Your task to perform on an android device: set the timer Image 0: 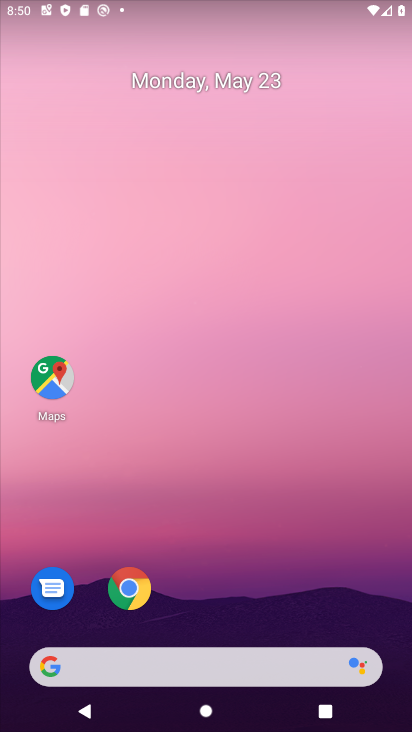
Step 0: drag from (394, 655) to (355, 231)
Your task to perform on an android device: set the timer Image 1: 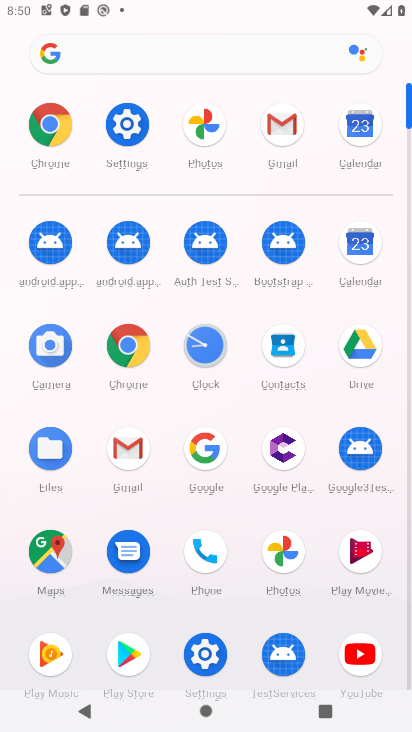
Step 1: click (200, 349)
Your task to perform on an android device: set the timer Image 2: 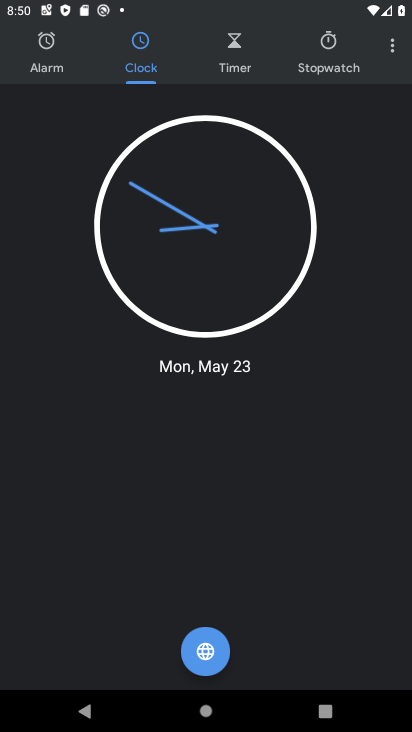
Step 2: click (319, 39)
Your task to perform on an android device: set the timer Image 3: 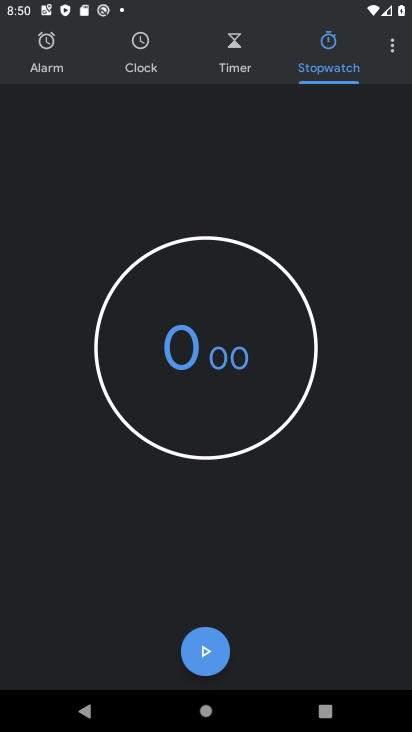
Step 3: click (205, 659)
Your task to perform on an android device: set the timer Image 4: 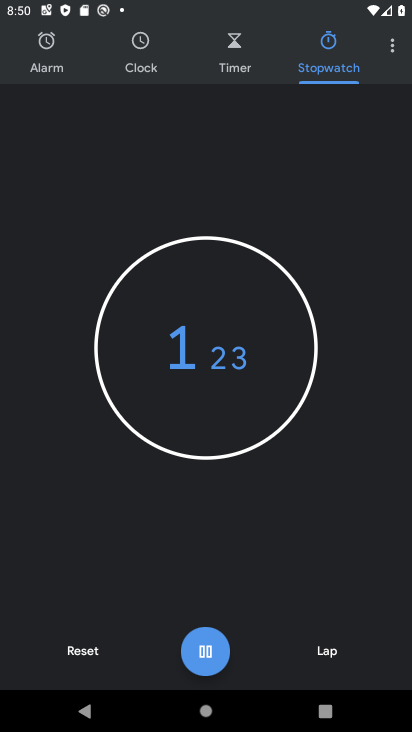
Step 4: task complete